Your task to perform on an android device: Do I have any events today? Image 0: 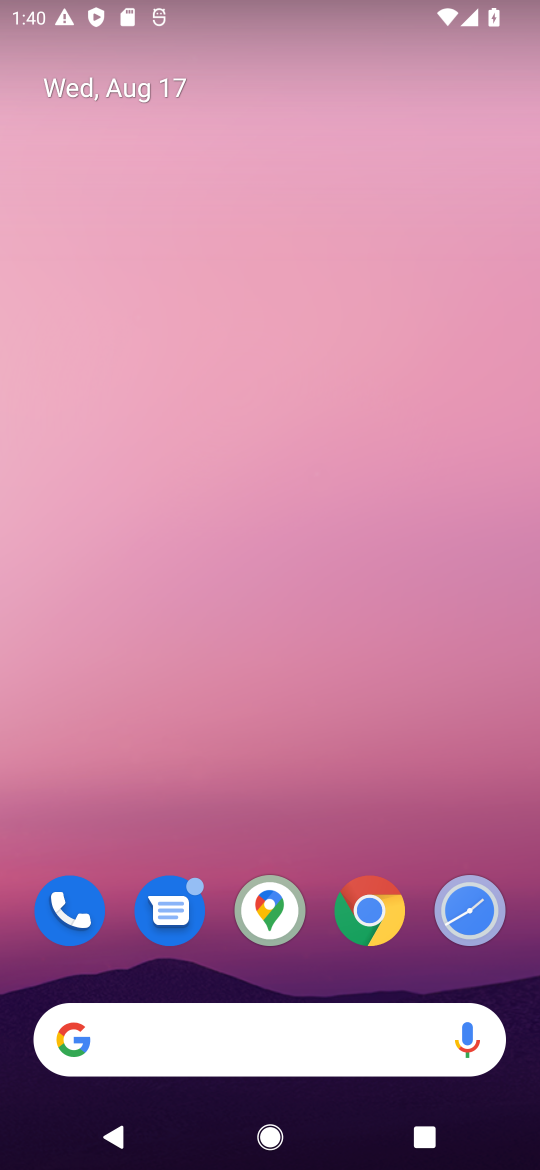
Step 0: drag from (239, 795) to (372, 20)
Your task to perform on an android device: Do I have any events today? Image 1: 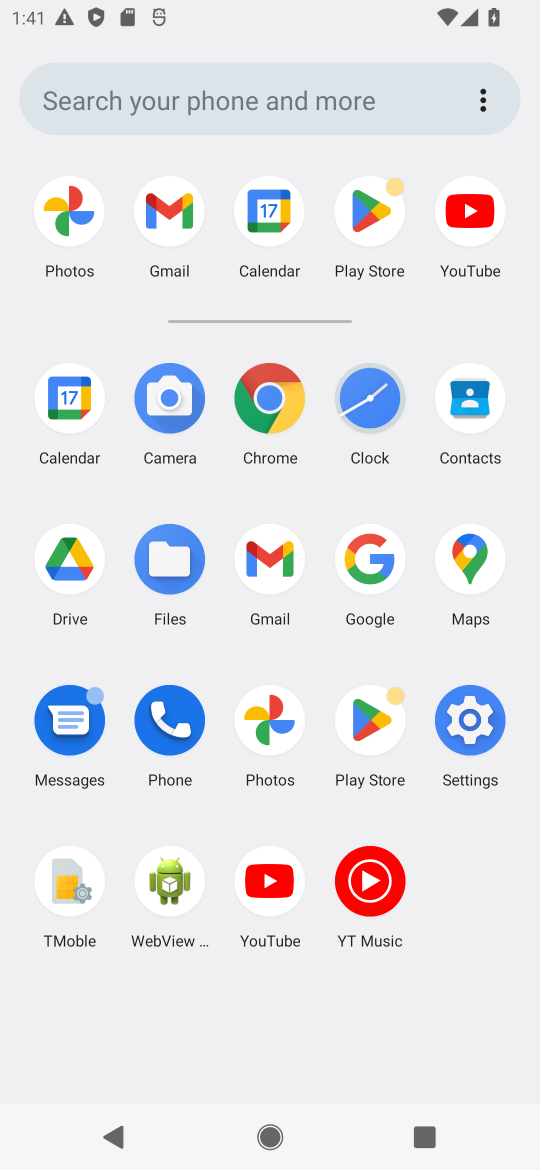
Step 1: click (288, 210)
Your task to perform on an android device: Do I have any events today? Image 2: 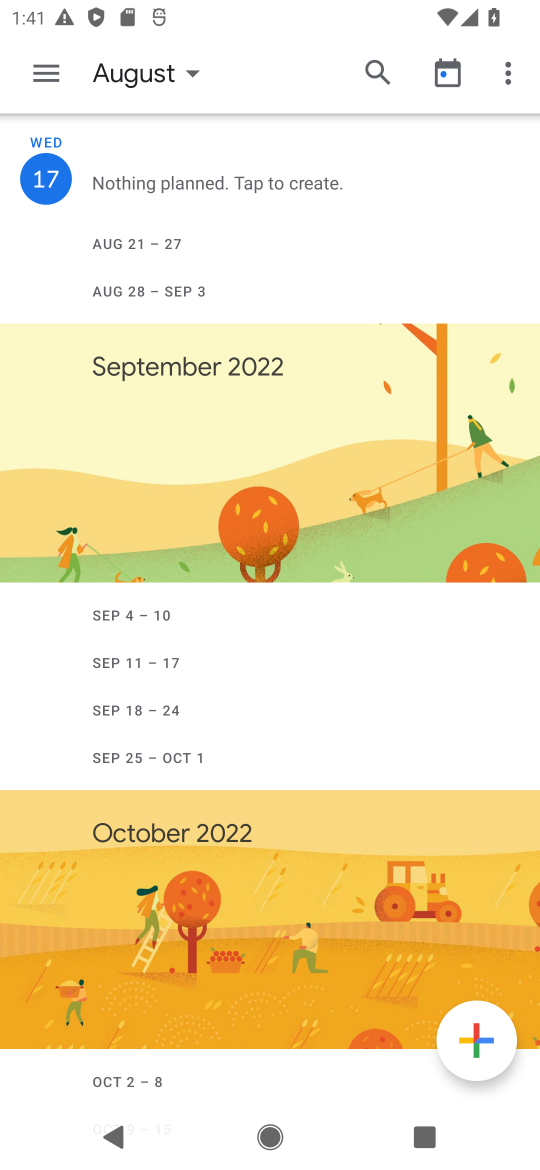
Step 2: task complete